Your task to perform on an android device: See recent photos Image 0: 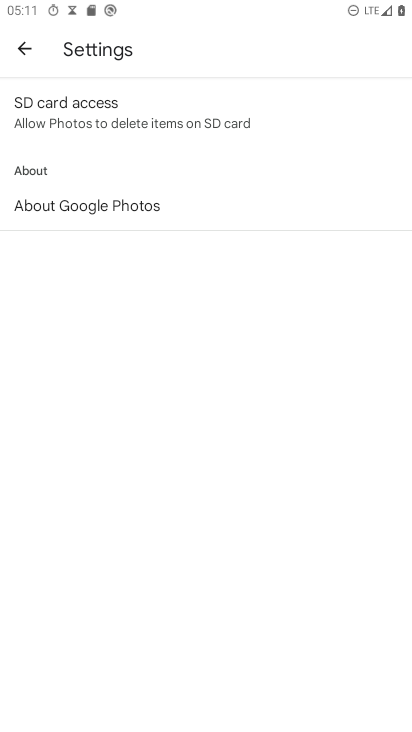
Step 0: press home button
Your task to perform on an android device: See recent photos Image 1: 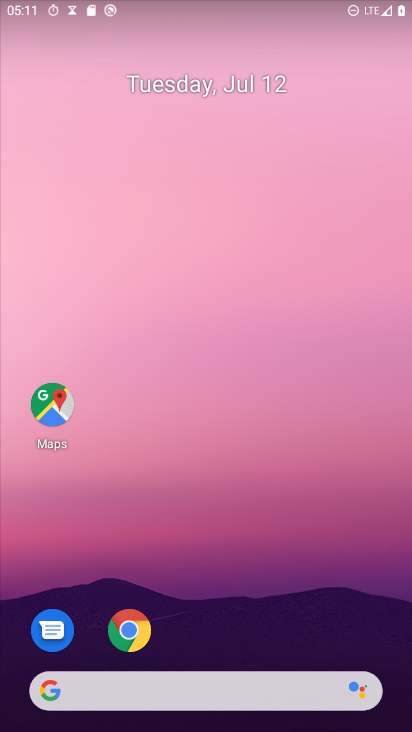
Step 1: drag from (294, 657) to (263, 97)
Your task to perform on an android device: See recent photos Image 2: 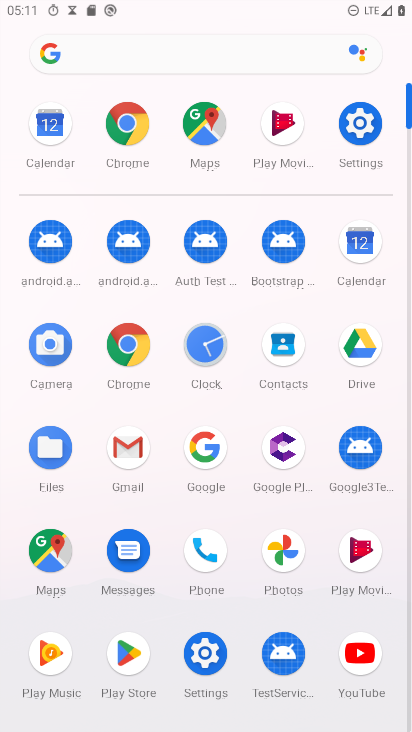
Step 2: click (295, 552)
Your task to perform on an android device: See recent photos Image 3: 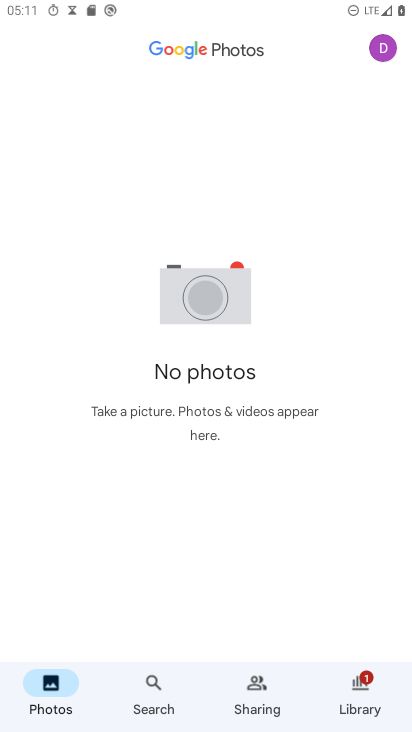
Step 3: task complete